Your task to perform on an android device: Turn on the flashlight Image 0: 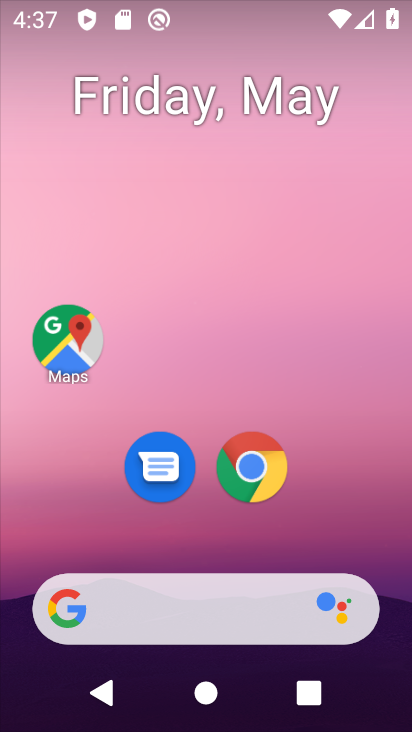
Step 0: drag from (352, 527) to (348, 153)
Your task to perform on an android device: Turn on the flashlight Image 1: 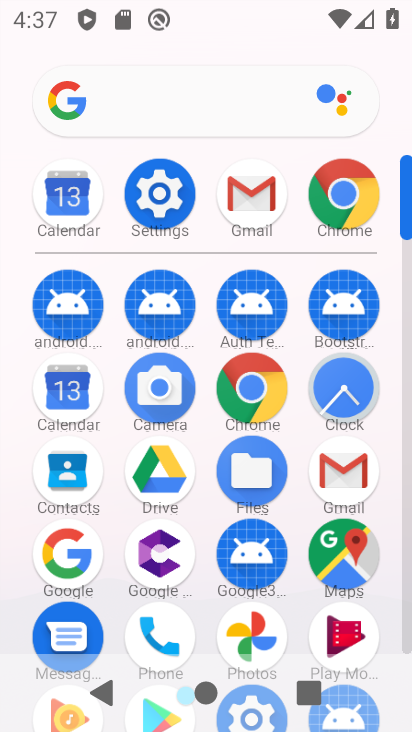
Step 1: click (157, 200)
Your task to perform on an android device: Turn on the flashlight Image 2: 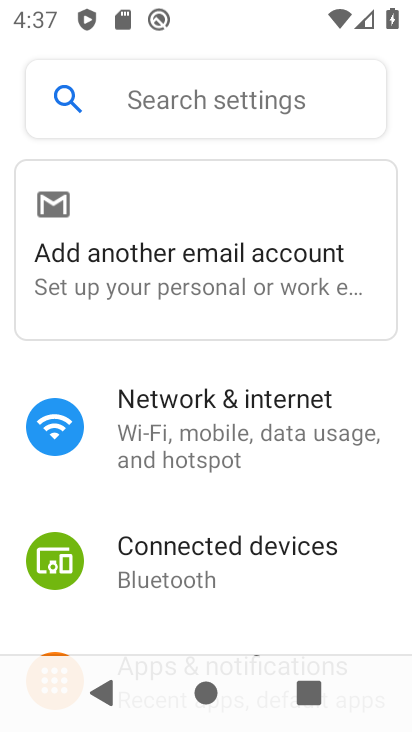
Step 2: drag from (225, 531) to (354, 167)
Your task to perform on an android device: Turn on the flashlight Image 3: 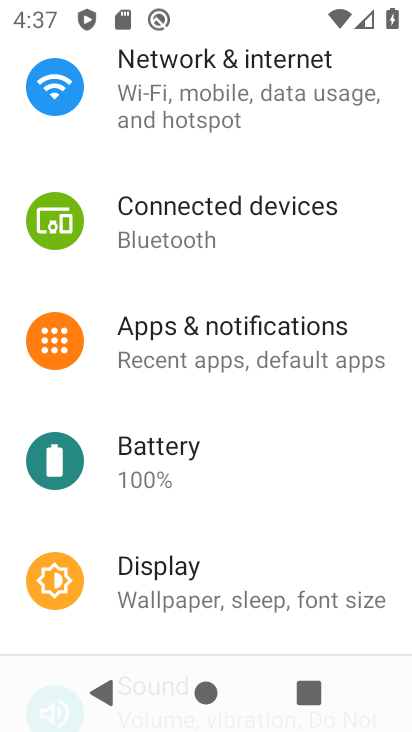
Step 3: drag from (197, 527) to (298, 283)
Your task to perform on an android device: Turn on the flashlight Image 4: 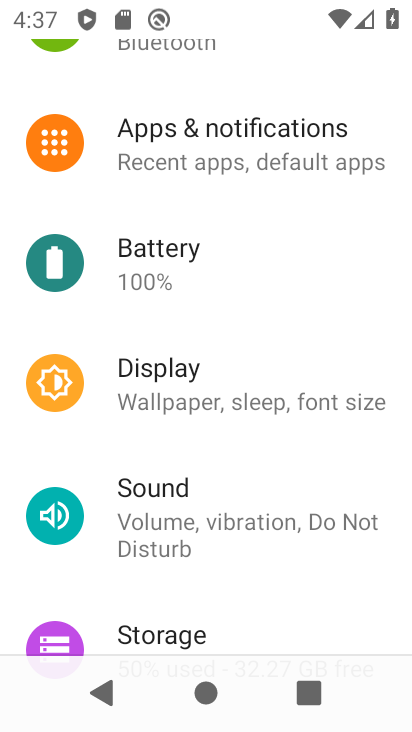
Step 4: click (213, 368)
Your task to perform on an android device: Turn on the flashlight Image 5: 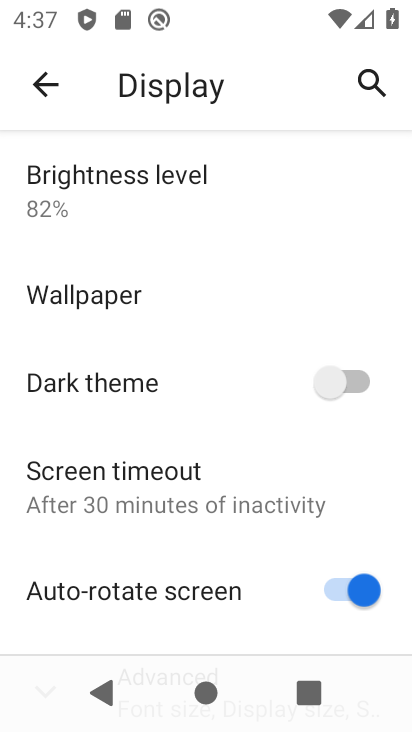
Step 5: task complete